Your task to perform on an android device: change the clock display to analog Image 0: 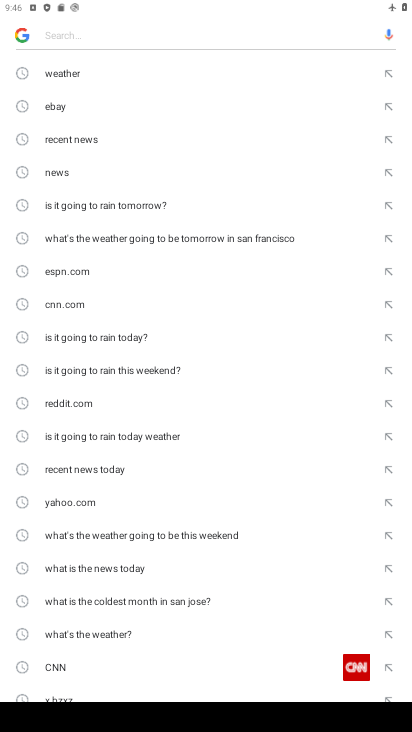
Step 0: press home button
Your task to perform on an android device: change the clock display to analog Image 1: 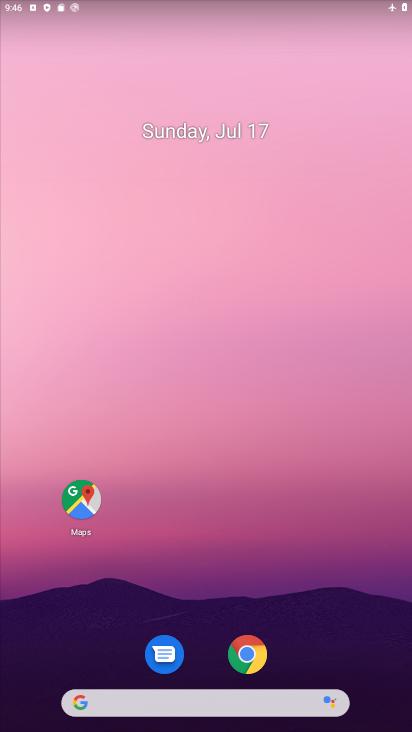
Step 1: drag from (220, 516) to (215, 161)
Your task to perform on an android device: change the clock display to analog Image 2: 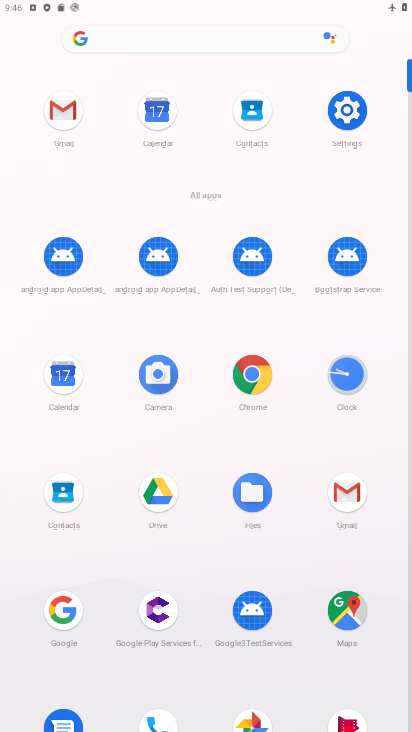
Step 2: click (336, 383)
Your task to perform on an android device: change the clock display to analog Image 3: 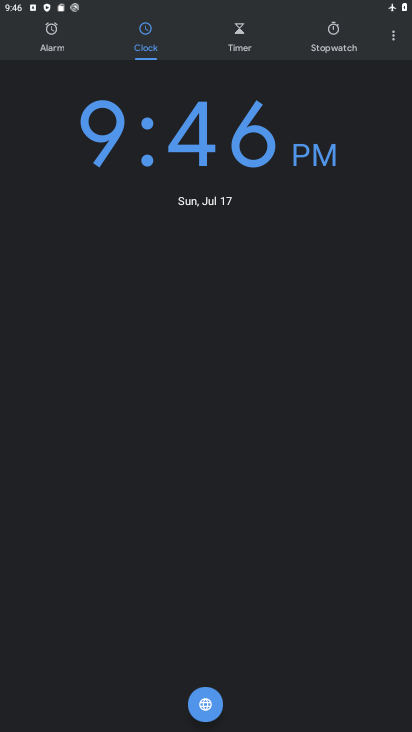
Step 3: click (384, 41)
Your task to perform on an android device: change the clock display to analog Image 4: 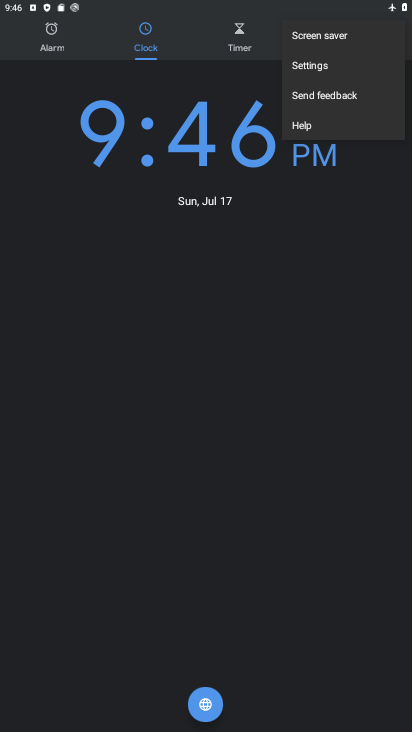
Step 4: click (317, 59)
Your task to perform on an android device: change the clock display to analog Image 5: 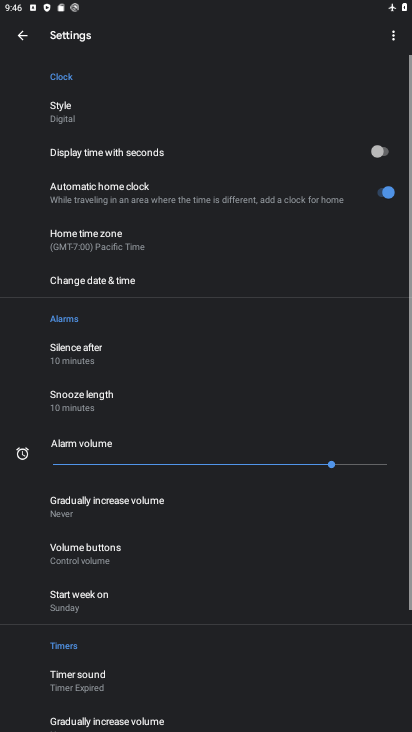
Step 5: click (109, 106)
Your task to perform on an android device: change the clock display to analog Image 6: 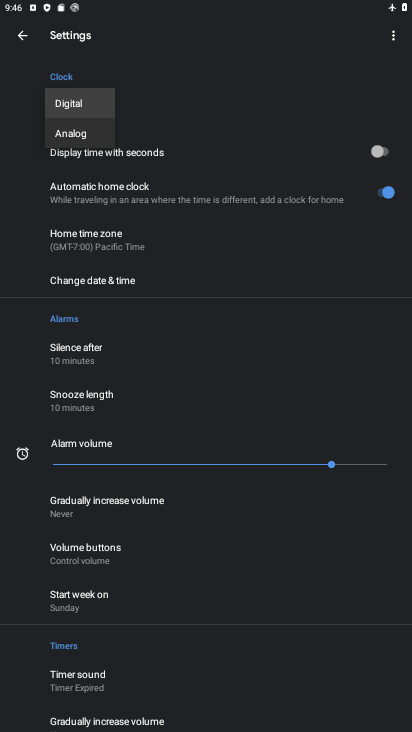
Step 6: click (95, 130)
Your task to perform on an android device: change the clock display to analog Image 7: 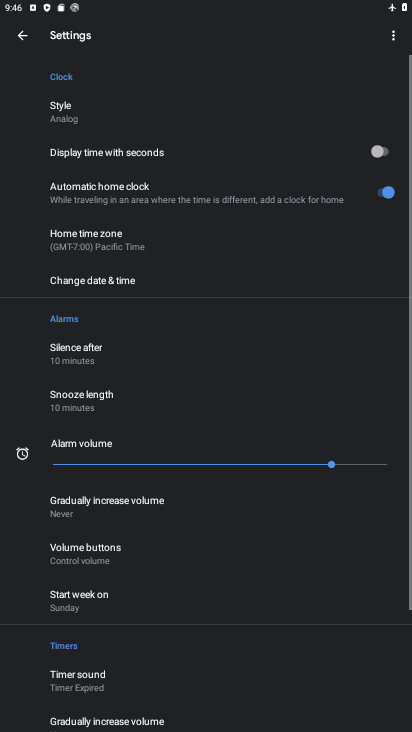
Step 7: task complete